Your task to perform on an android device: set default search engine in the chrome app Image 0: 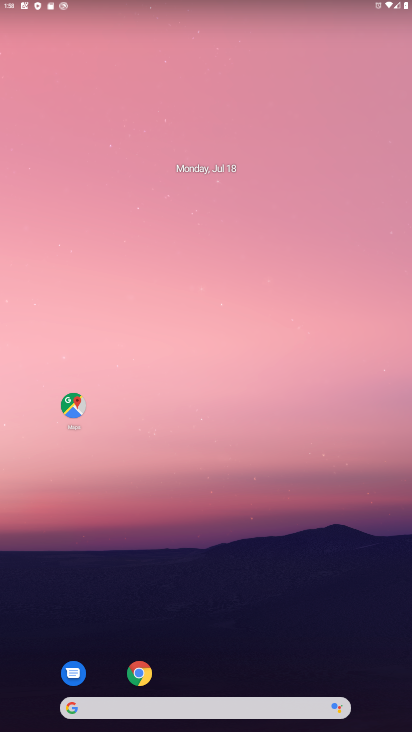
Step 0: click (146, 656)
Your task to perform on an android device: set default search engine in the chrome app Image 1: 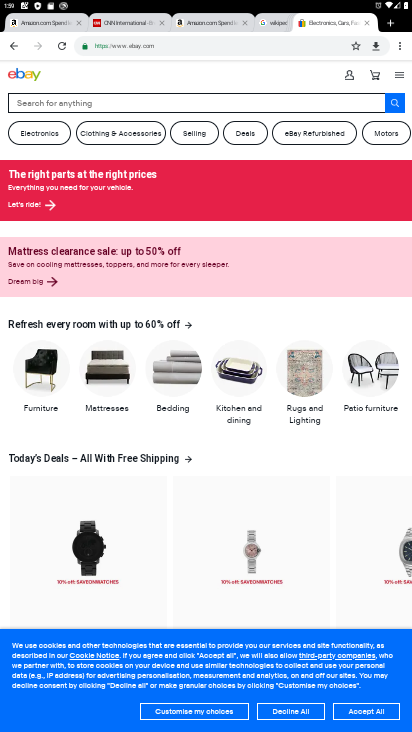
Step 1: click (397, 51)
Your task to perform on an android device: set default search engine in the chrome app Image 2: 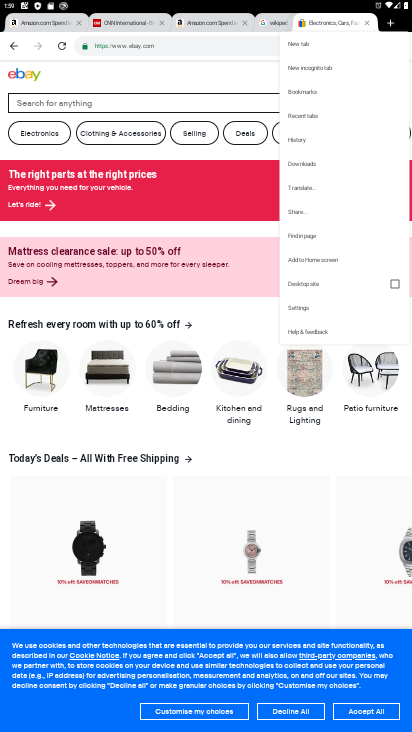
Step 2: click (304, 302)
Your task to perform on an android device: set default search engine in the chrome app Image 3: 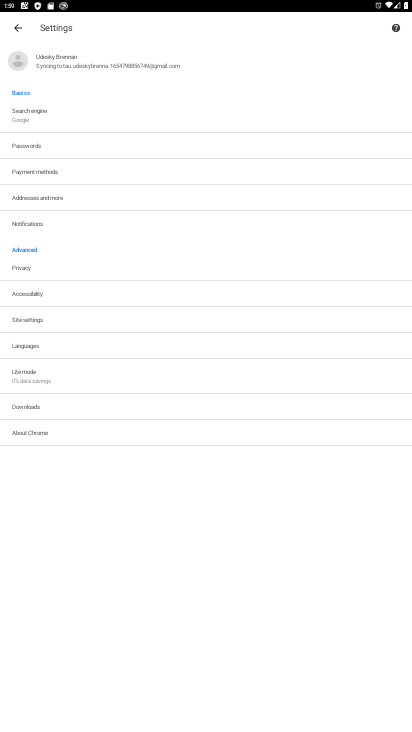
Step 3: click (41, 122)
Your task to perform on an android device: set default search engine in the chrome app Image 4: 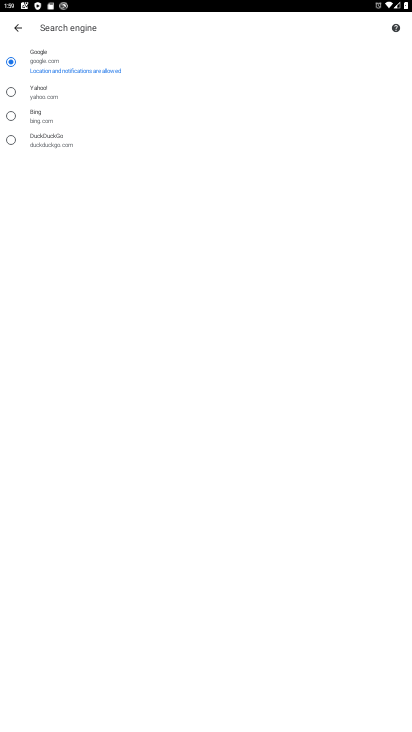
Step 4: click (61, 143)
Your task to perform on an android device: set default search engine in the chrome app Image 5: 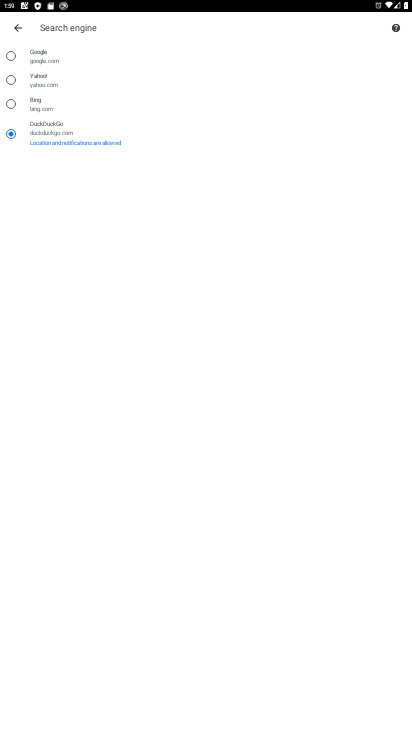
Step 5: task complete